Your task to perform on an android device: Go to eBay Image 0: 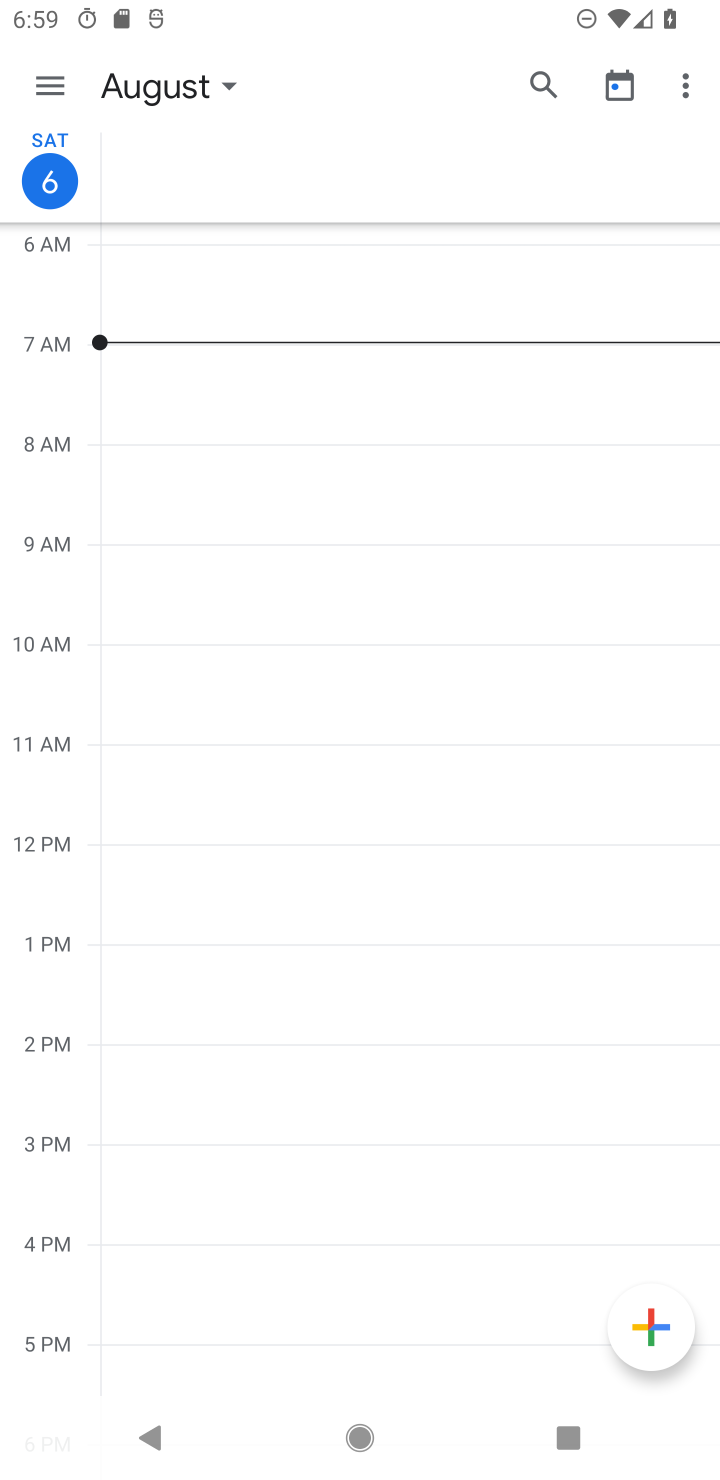
Step 0: press home button
Your task to perform on an android device: Go to eBay Image 1: 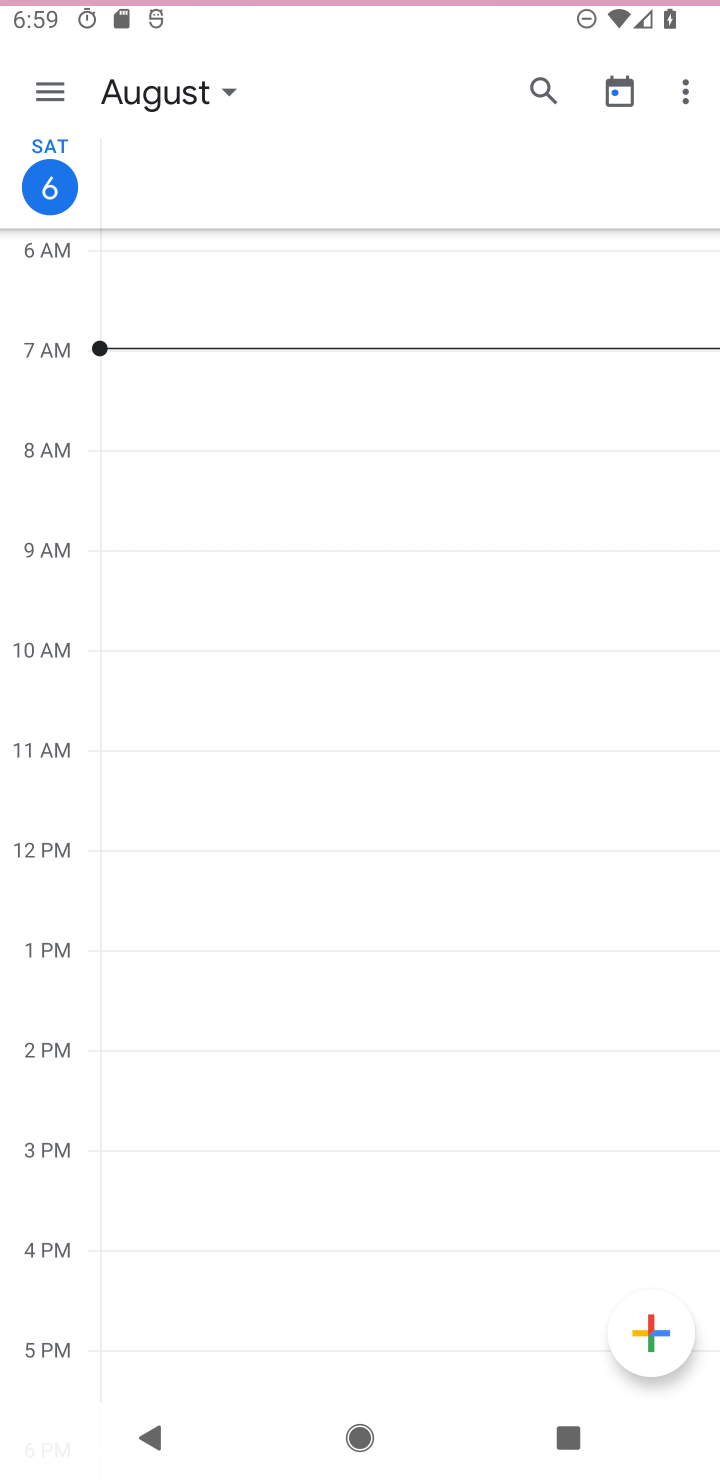
Step 1: drag from (380, 868) to (436, 695)
Your task to perform on an android device: Go to eBay Image 2: 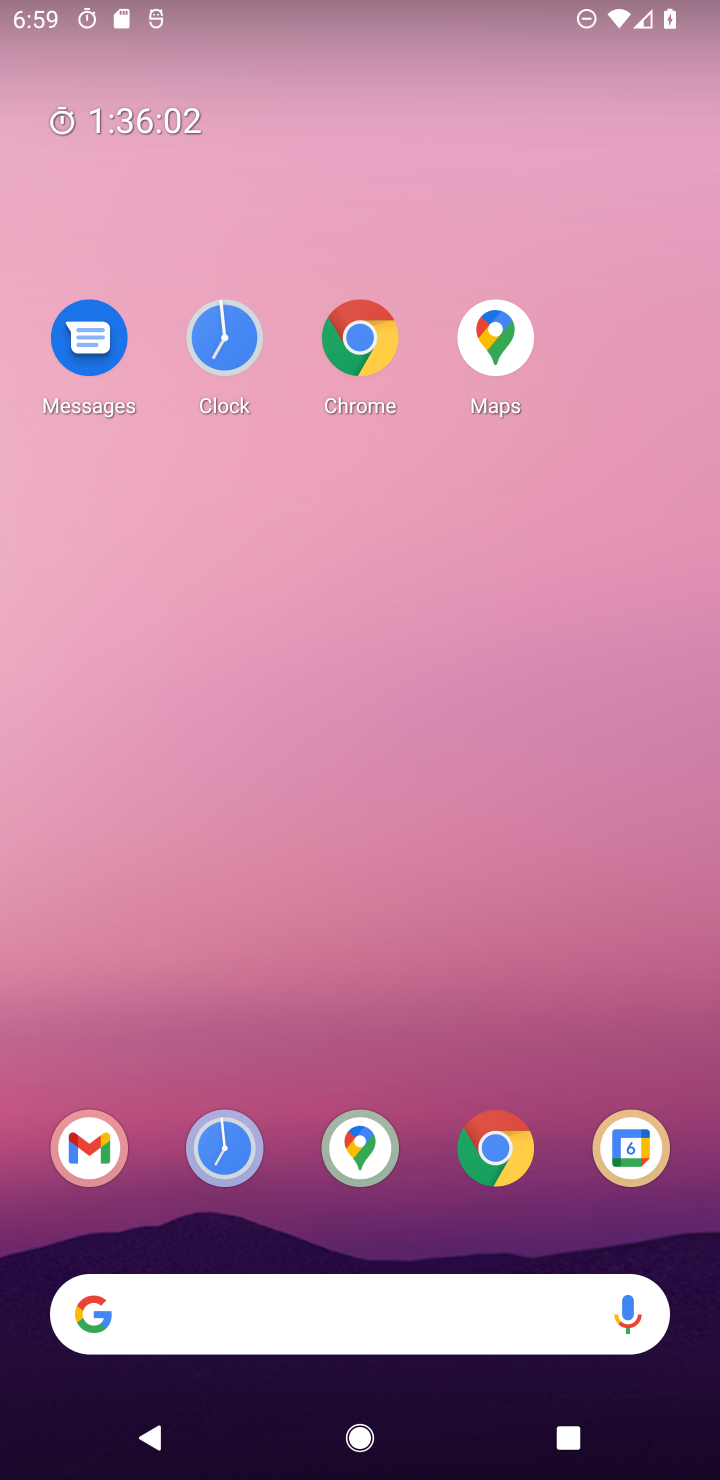
Step 2: drag from (413, 1077) to (610, 0)
Your task to perform on an android device: Go to eBay Image 3: 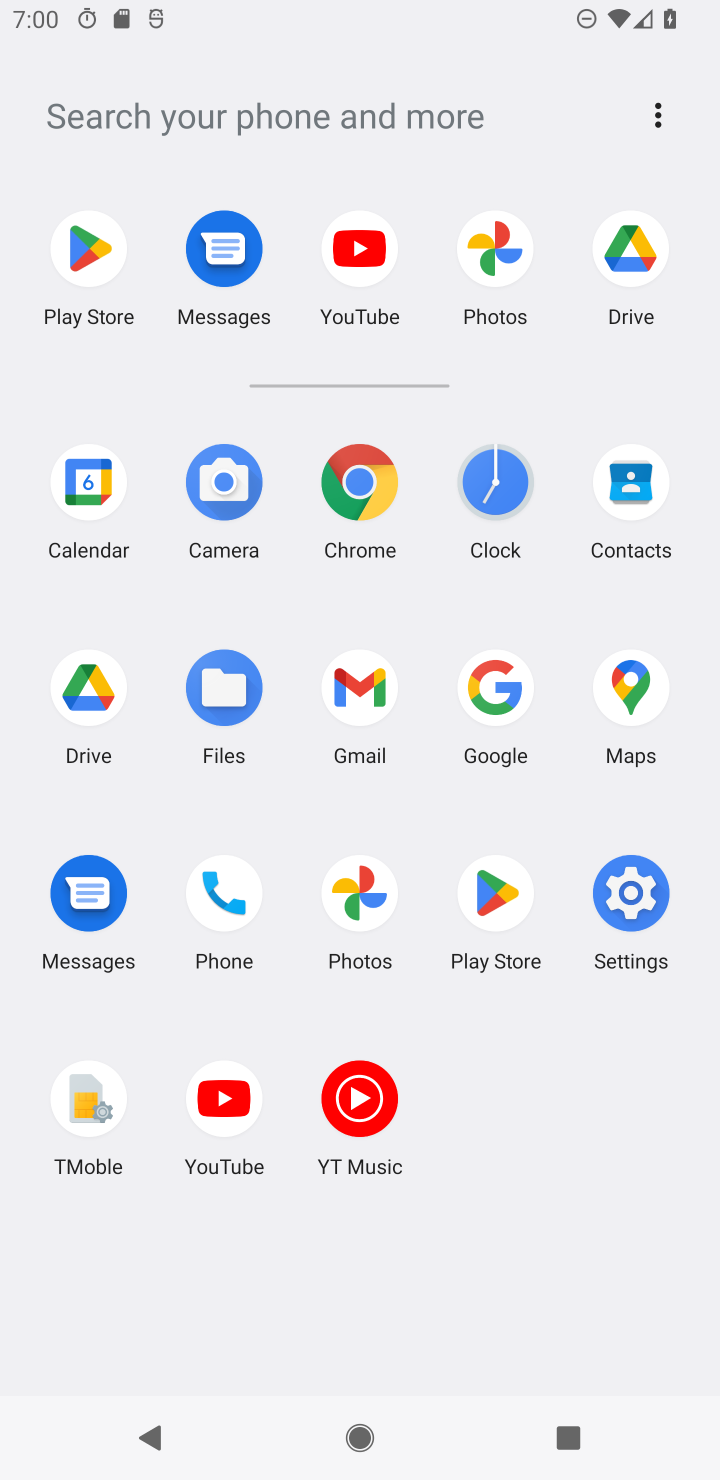
Step 3: click (225, 126)
Your task to perform on an android device: Go to eBay Image 4: 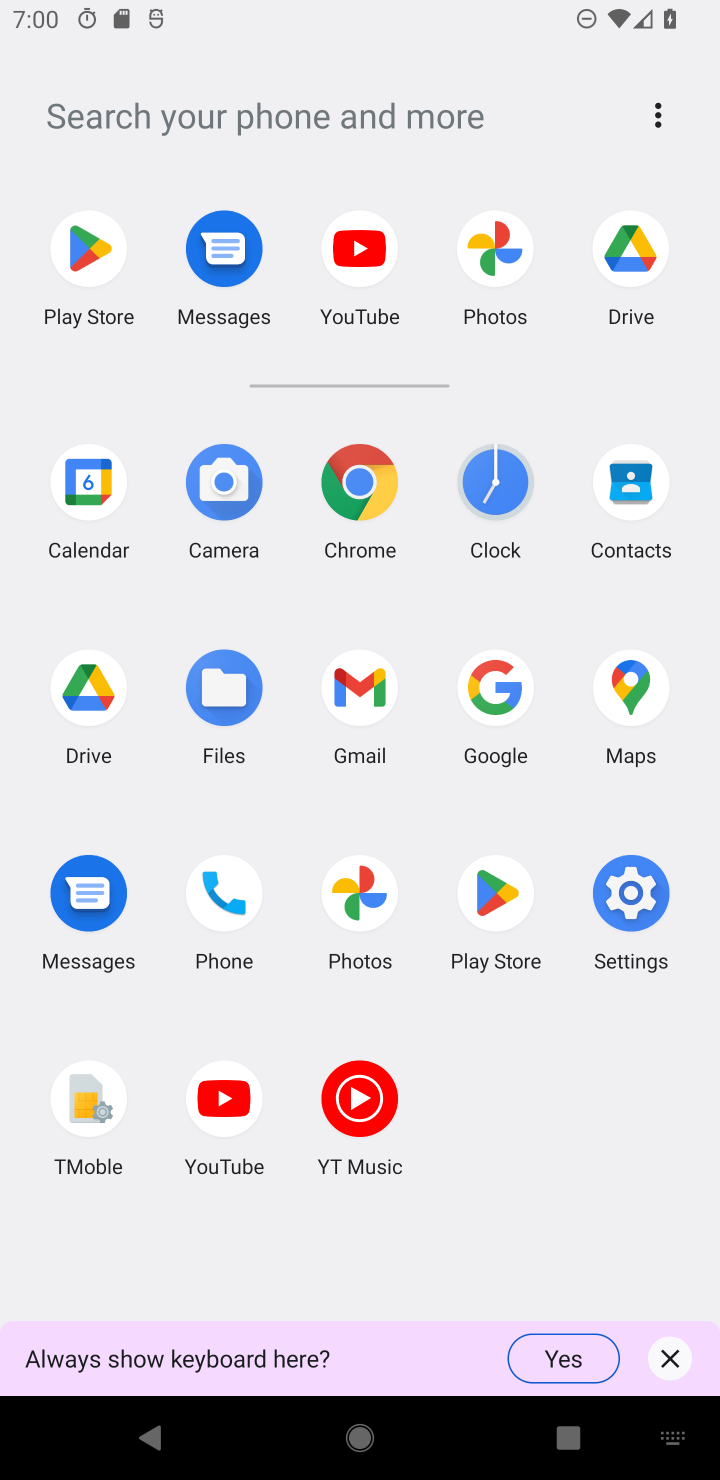
Step 4: type "eBay"
Your task to perform on an android device: Go to eBay Image 5: 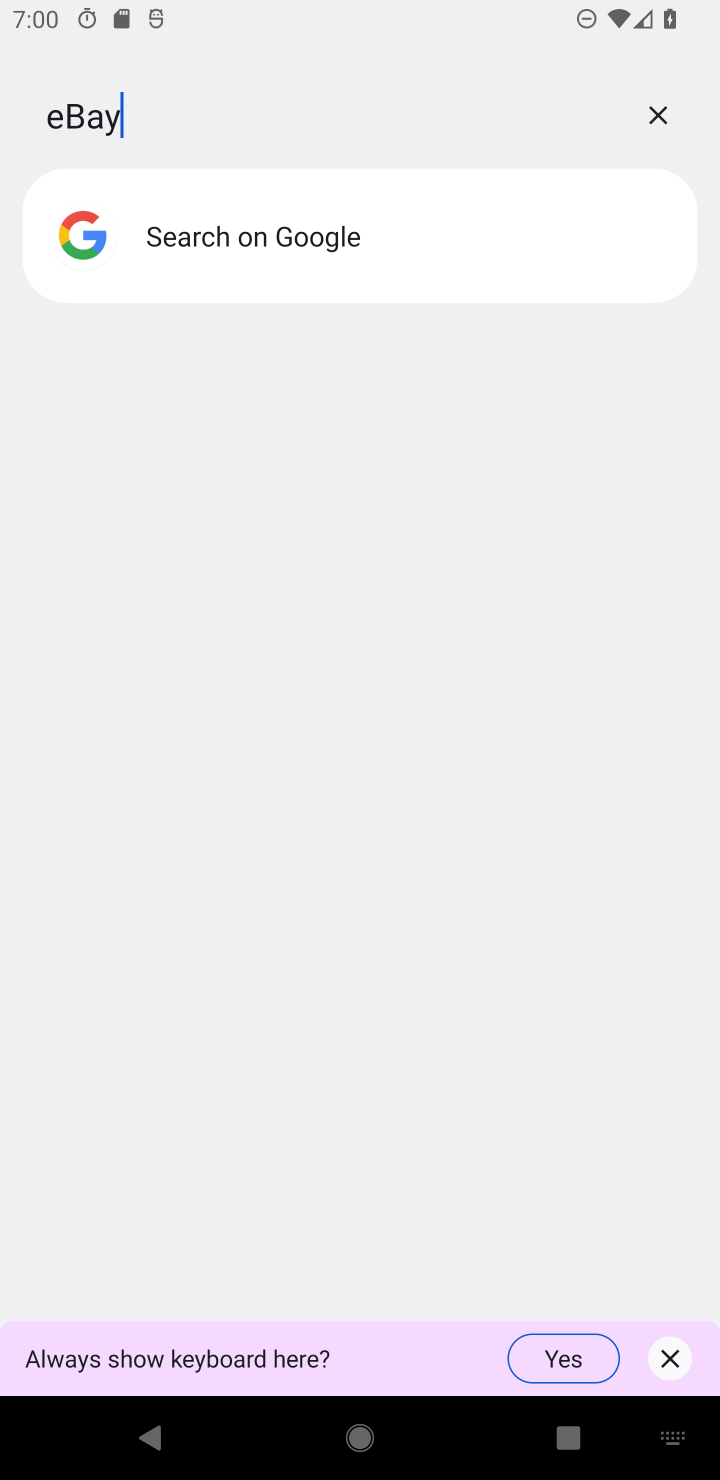
Step 5: click (207, 229)
Your task to perform on an android device: Go to eBay Image 6: 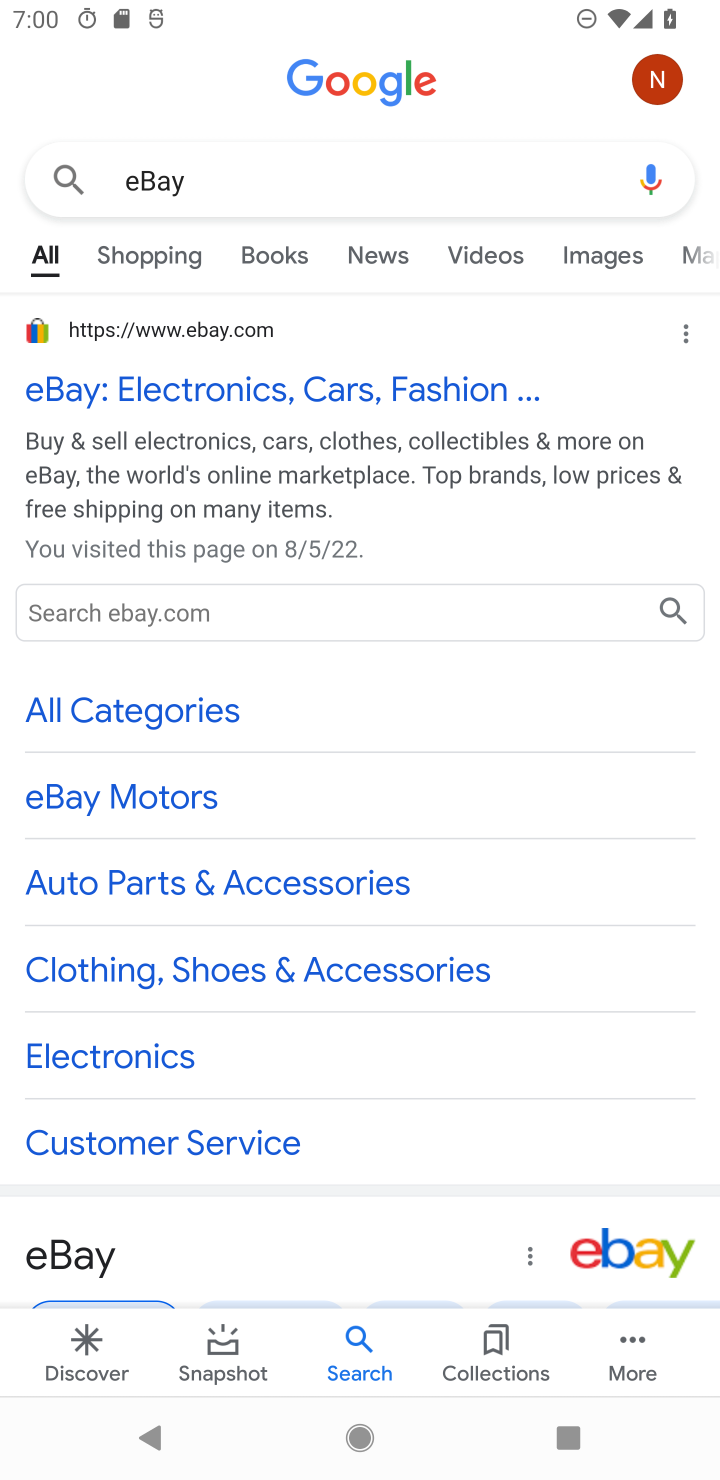
Step 6: click (199, 390)
Your task to perform on an android device: Go to eBay Image 7: 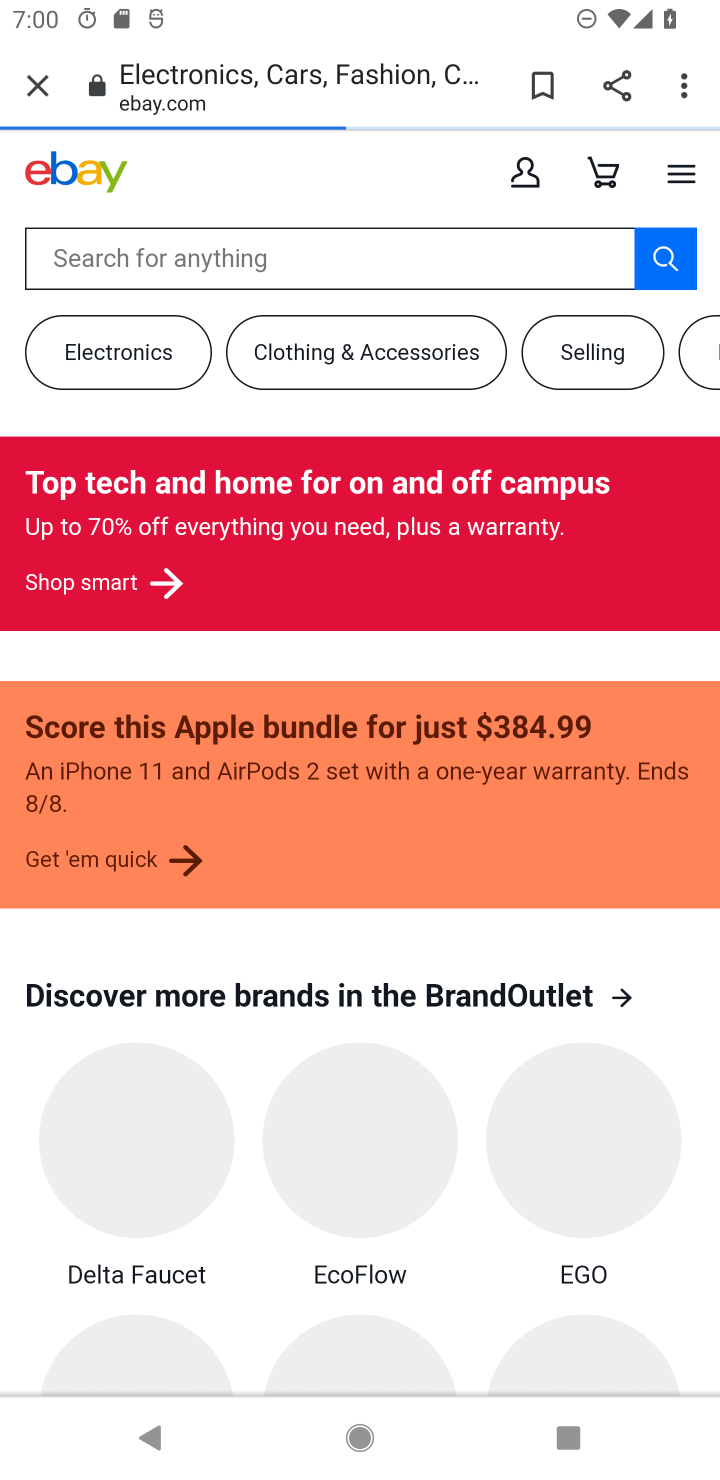
Step 7: task complete